Your task to perform on an android device: Go to Reddit.com Image 0: 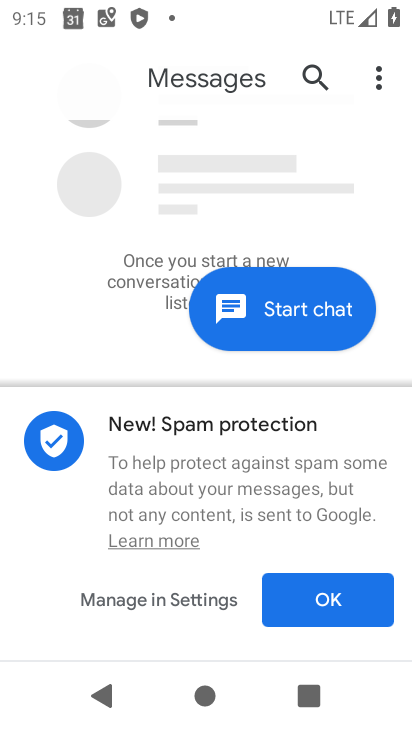
Step 0: press home button
Your task to perform on an android device: Go to Reddit.com Image 1: 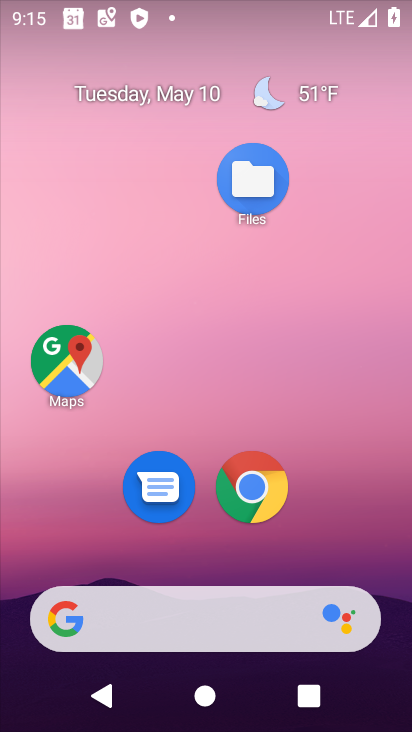
Step 1: drag from (242, 578) to (225, 131)
Your task to perform on an android device: Go to Reddit.com Image 2: 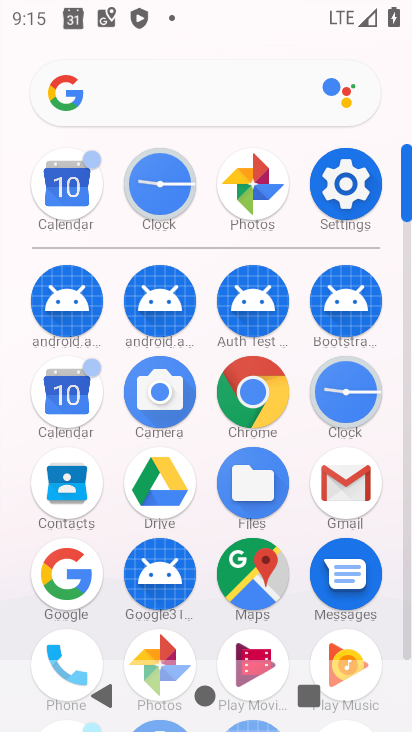
Step 2: click (66, 582)
Your task to perform on an android device: Go to Reddit.com Image 3: 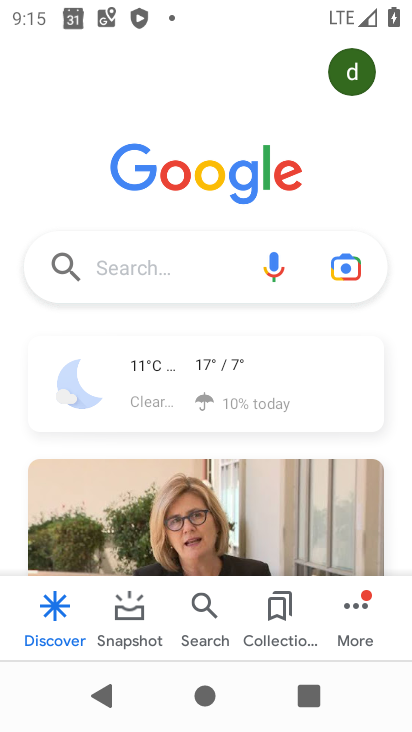
Step 3: click (151, 264)
Your task to perform on an android device: Go to Reddit.com Image 4: 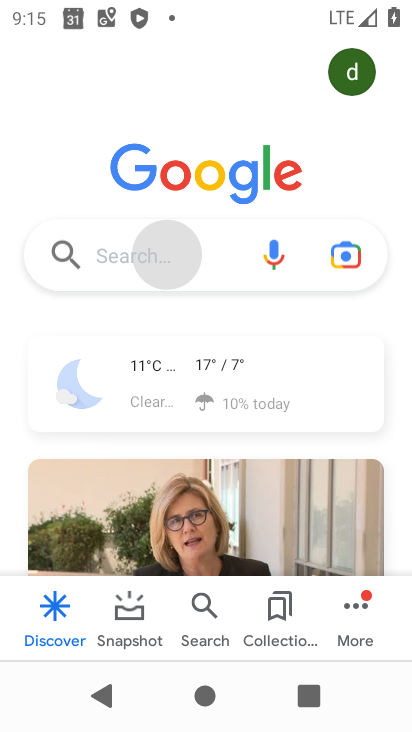
Step 4: click (151, 264)
Your task to perform on an android device: Go to Reddit.com Image 5: 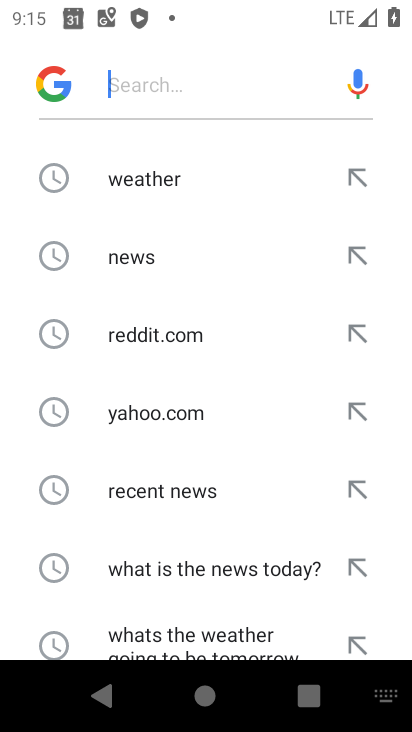
Step 5: drag from (178, 556) to (218, 189)
Your task to perform on an android device: Go to Reddit.com Image 6: 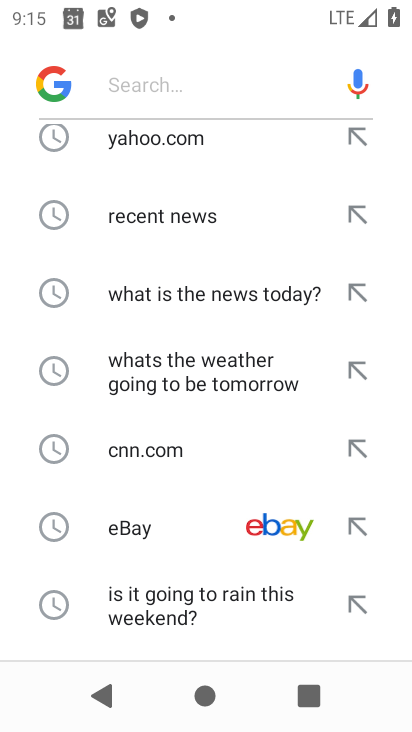
Step 6: drag from (178, 558) to (220, 130)
Your task to perform on an android device: Go to Reddit.com Image 7: 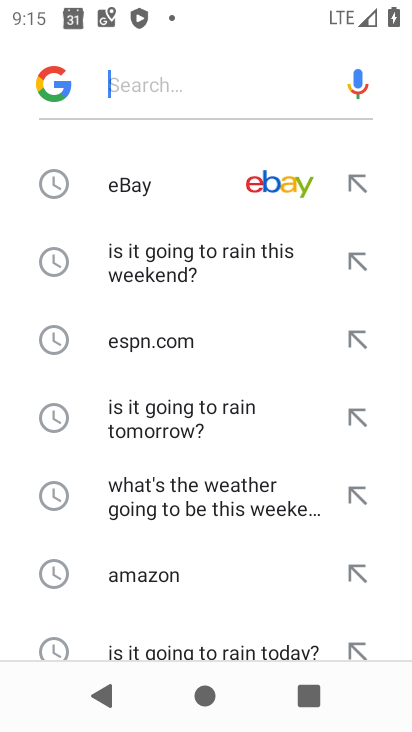
Step 7: type "reddit.com"
Your task to perform on an android device: Go to Reddit.com Image 8: 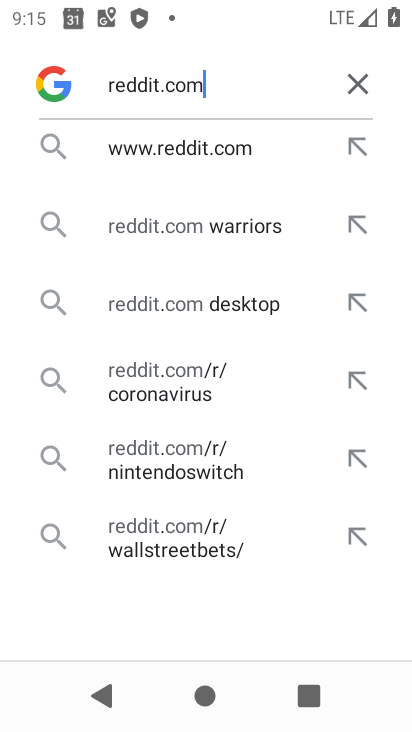
Step 8: click (190, 155)
Your task to perform on an android device: Go to Reddit.com Image 9: 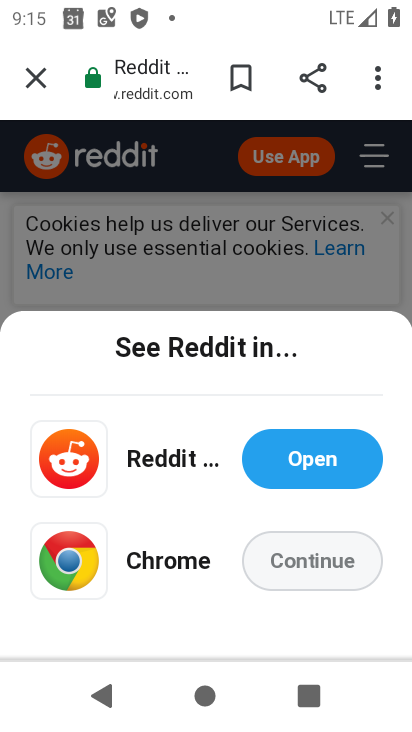
Step 9: task complete